Your task to perform on an android device: toggle javascript in the chrome app Image 0: 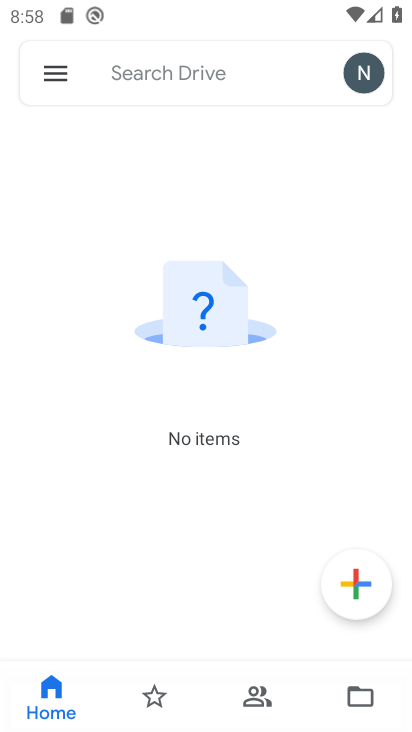
Step 0: press home button
Your task to perform on an android device: toggle javascript in the chrome app Image 1: 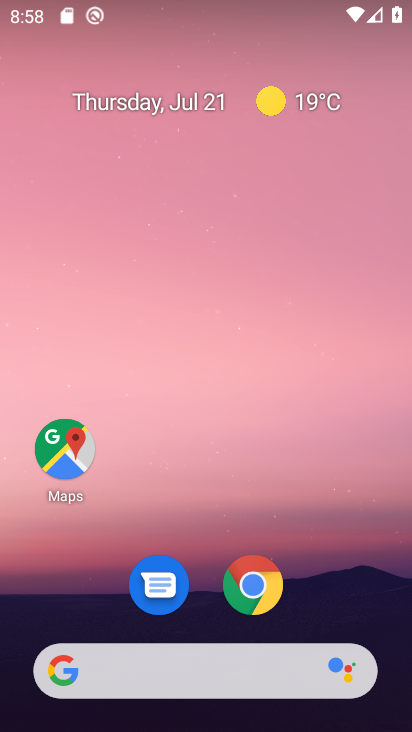
Step 1: click (249, 566)
Your task to perform on an android device: toggle javascript in the chrome app Image 2: 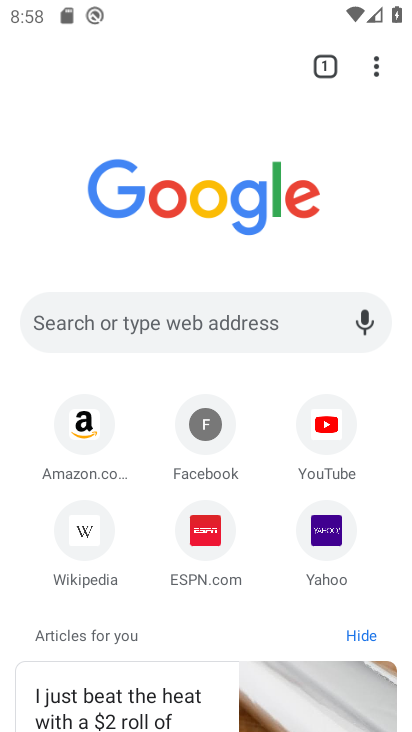
Step 2: drag from (255, 483) to (299, 296)
Your task to perform on an android device: toggle javascript in the chrome app Image 3: 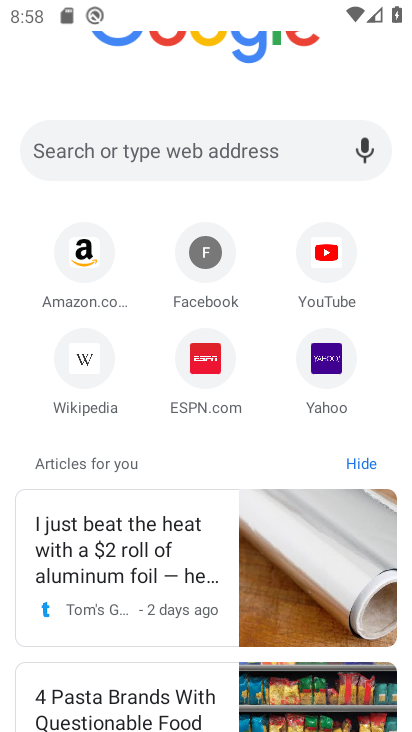
Step 3: drag from (270, 227) to (274, 404)
Your task to perform on an android device: toggle javascript in the chrome app Image 4: 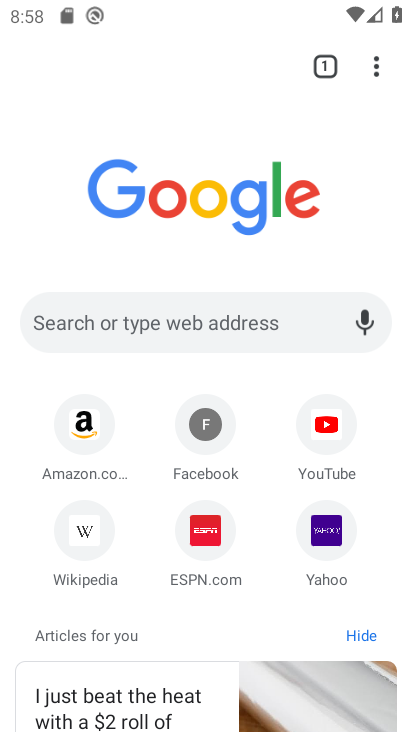
Step 4: click (375, 75)
Your task to perform on an android device: toggle javascript in the chrome app Image 5: 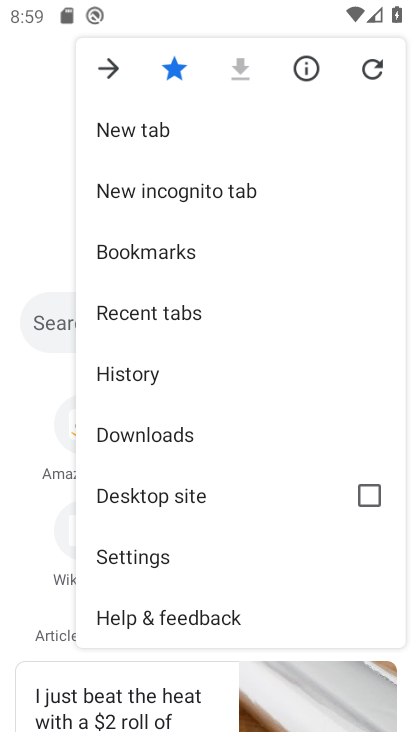
Step 5: click (160, 560)
Your task to perform on an android device: toggle javascript in the chrome app Image 6: 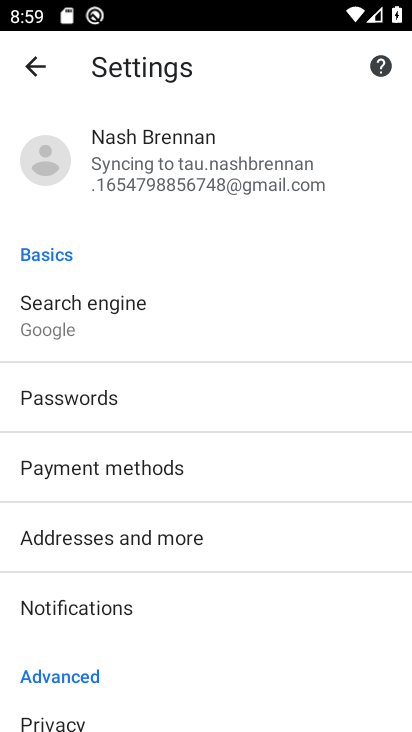
Step 6: drag from (191, 637) to (260, 242)
Your task to perform on an android device: toggle javascript in the chrome app Image 7: 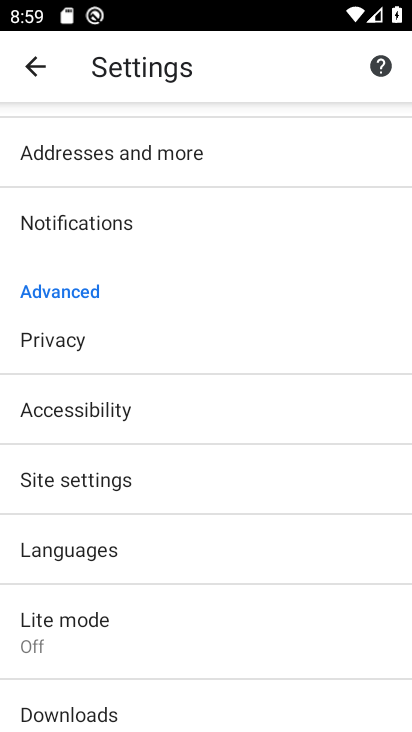
Step 7: drag from (223, 594) to (235, 316)
Your task to perform on an android device: toggle javascript in the chrome app Image 8: 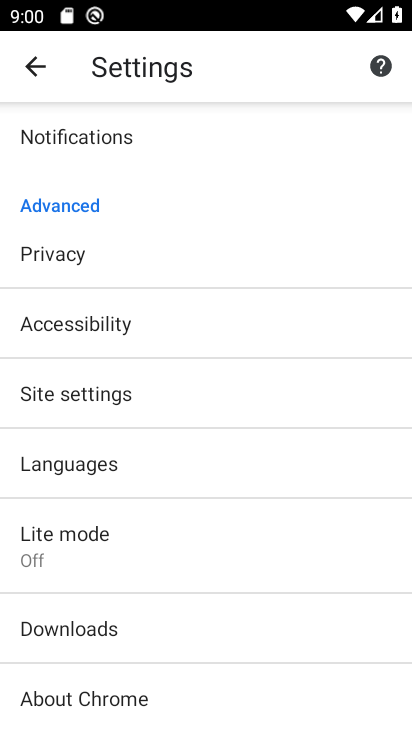
Step 8: click (114, 402)
Your task to perform on an android device: toggle javascript in the chrome app Image 9: 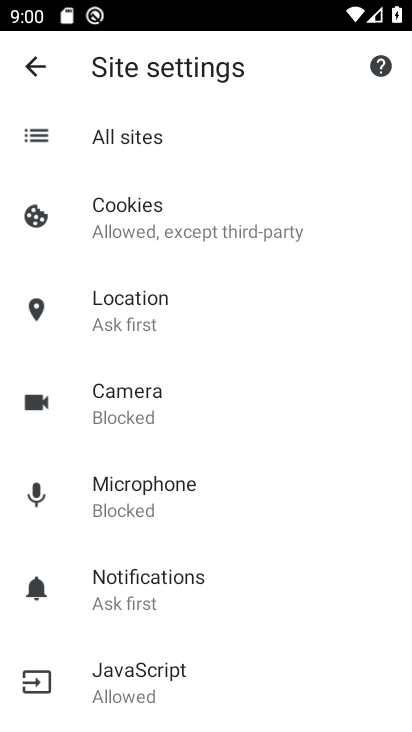
Step 9: drag from (262, 559) to (281, 262)
Your task to perform on an android device: toggle javascript in the chrome app Image 10: 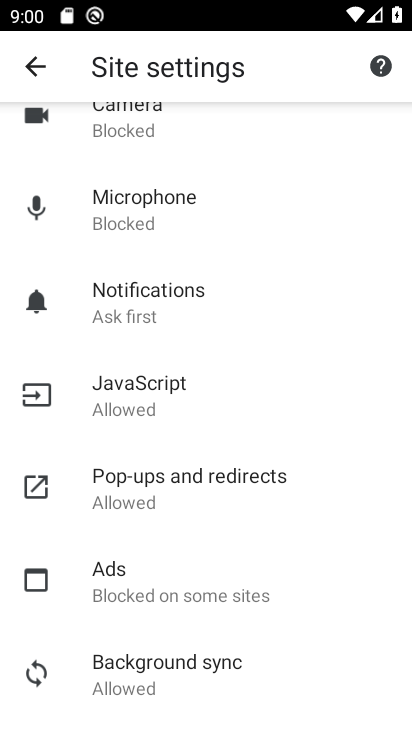
Step 10: click (176, 393)
Your task to perform on an android device: toggle javascript in the chrome app Image 11: 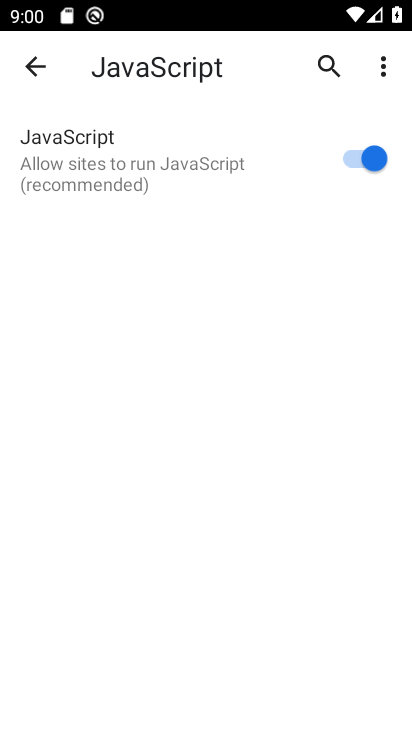
Step 11: click (352, 150)
Your task to perform on an android device: toggle javascript in the chrome app Image 12: 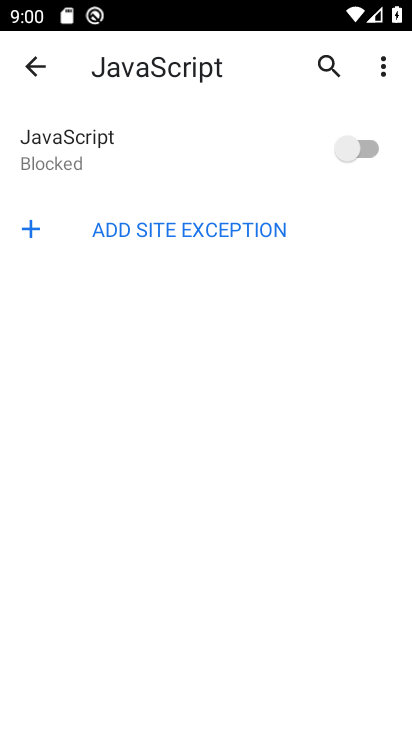
Step 12: task complete